Your task to perform on an android device: turn off improve location accuracy Image 0: 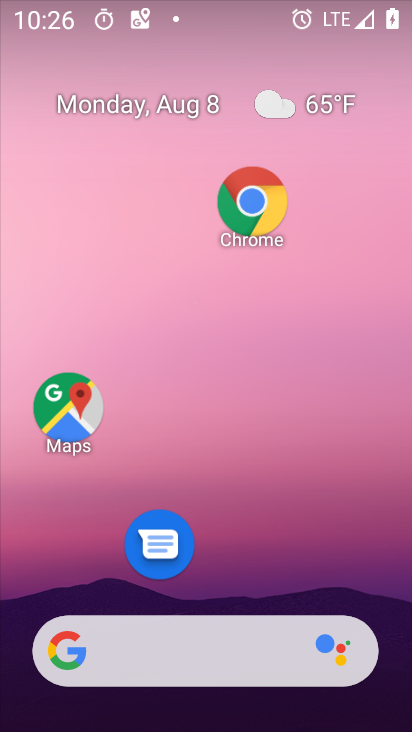
Step 0: press home button
Your task to perform on an android device: turn off improve location accuracy Image 1: 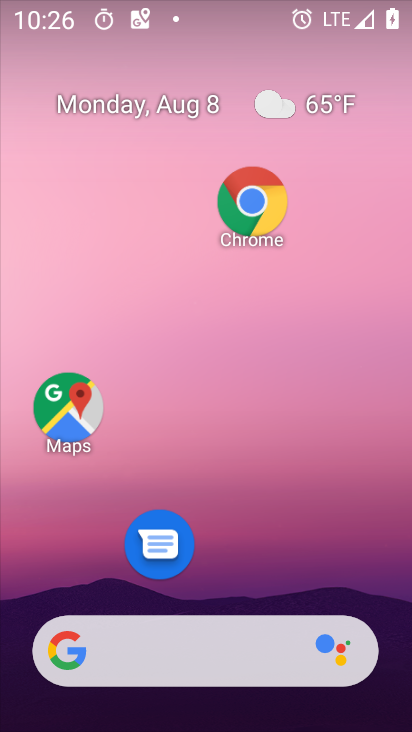
Step 1: drag from (227, 587) to (212, 95)
Your task to perform on an android device: turn off improve location accuracy Image 2: 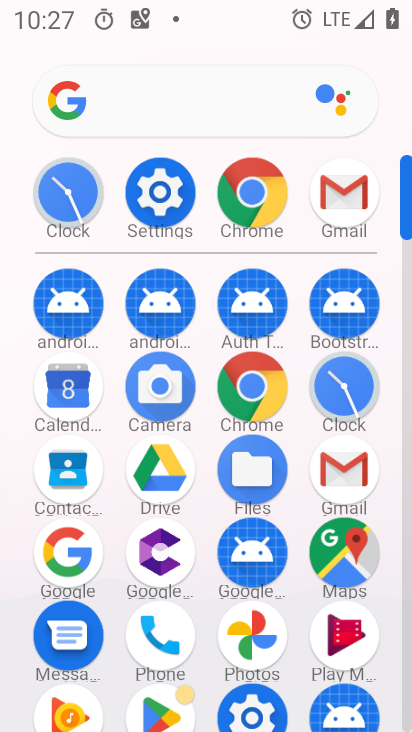
Step 2: click (155, 194)
Your task to perform on an android device: turn off improve location accuracy Image 3: 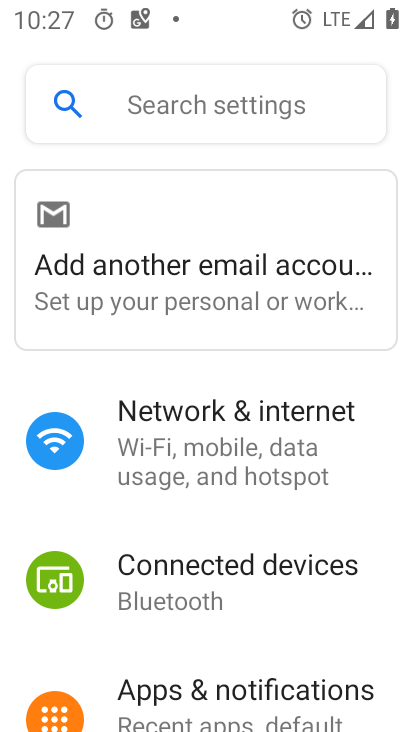
Step 3: drag from (239, 658) to (239, 74)
Your task to perform on an android device: turn off improve location accuracy Image 4: 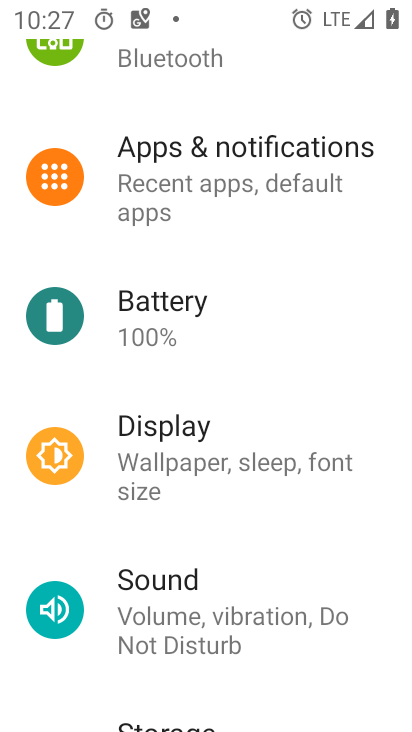
Step 4: drag from (187, 634) to (232, 99)
Your task to perform on an android device: turn off improve location accuracy Image 5: 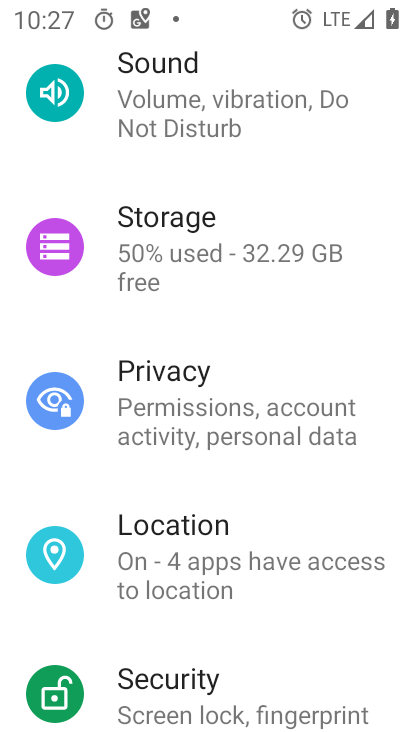
Step 5: click (223, 536)
Your task to perform on an android device: turn off improve location accuracy Image 6: 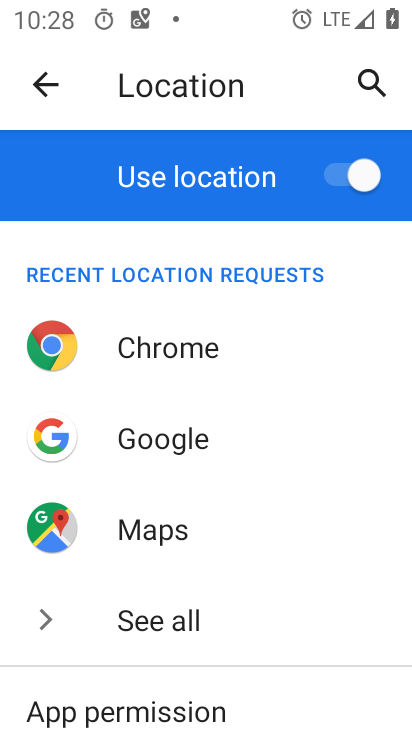
Step 6: drag from (220, 656) to (287, 154)
Your task to perform on an android device: turn off improve location accuracy Image 7: 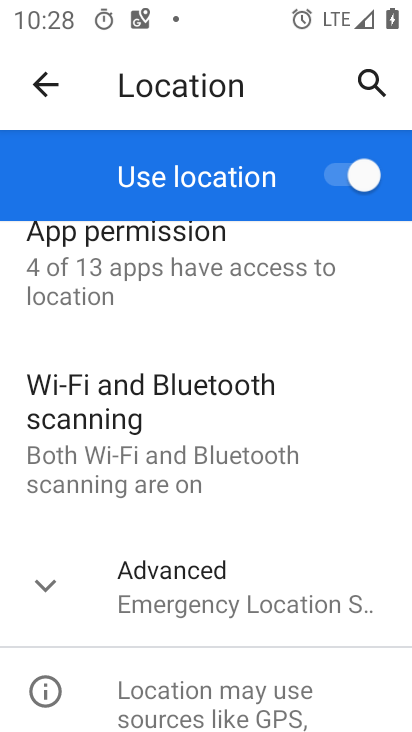
Step 7: click (38, 582)
Your task to perform on an android device: turn off improve location accuracy Image 8: 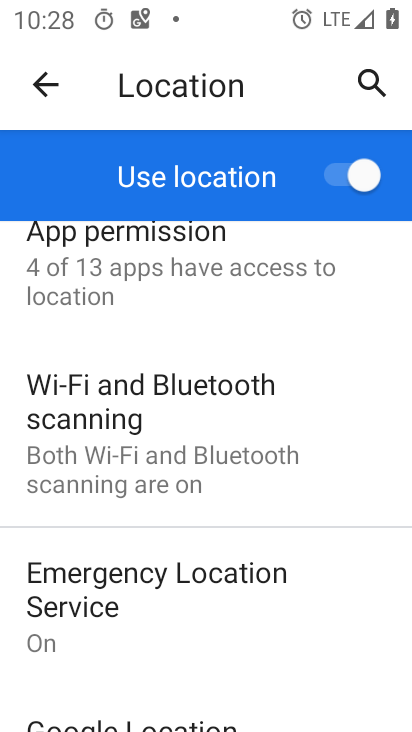
Step 8: drag from (237, 624) to (253, 328)
Your task to perform on an android device: turn off improve location accuracy Image 9: 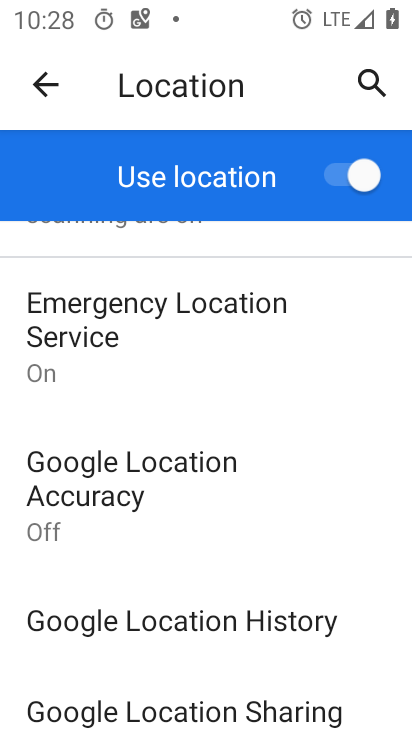
Step 9: click (178, 499)
Your task to perform on an android device: turn off improve location accuracy Image 10: 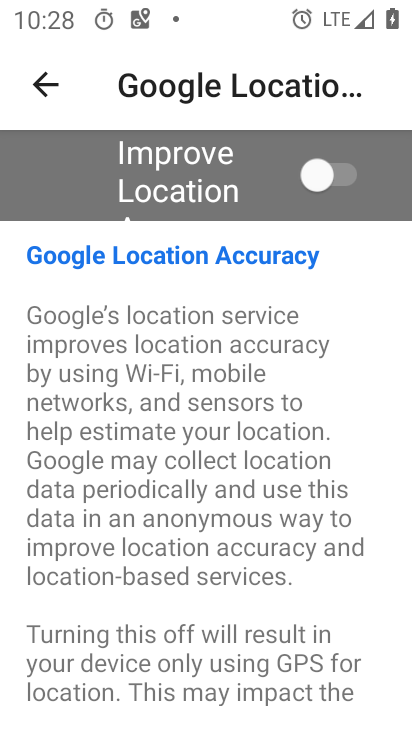
Step 10: task complete